Your task to perform on an android device: Do I have any events tomorrow? Image 0: 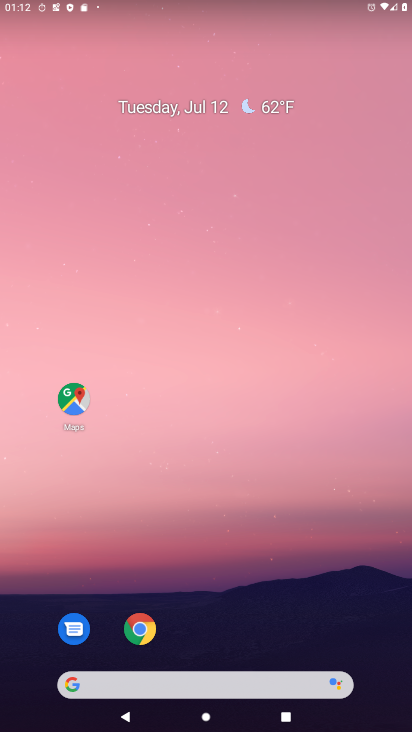
Step 0: drag from (197, 563) to (331, 67)
Your task to perform on an android device: Do I have any events tomorrow? Image 1: 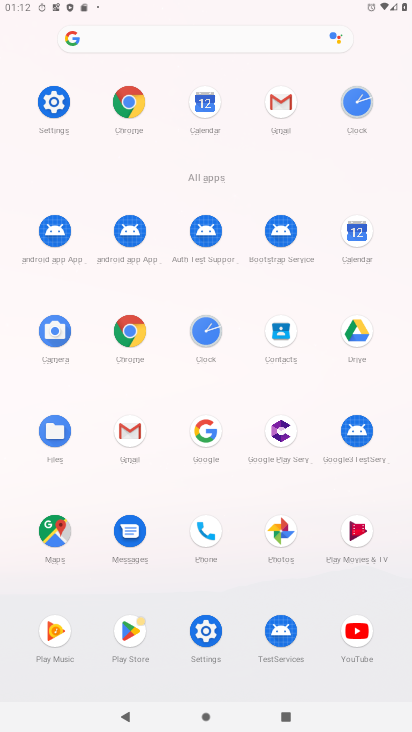
Step 1: click (353, 228)
Your task to perform on an android device: Do I have any events tomorrow? Image 2: 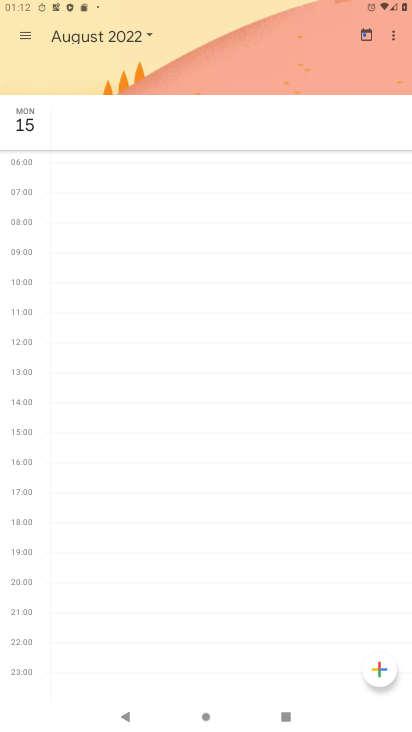
Step 2: click (113, 25)
Your task to perform on an android device: Do I have any events tomorrow? Image 3: 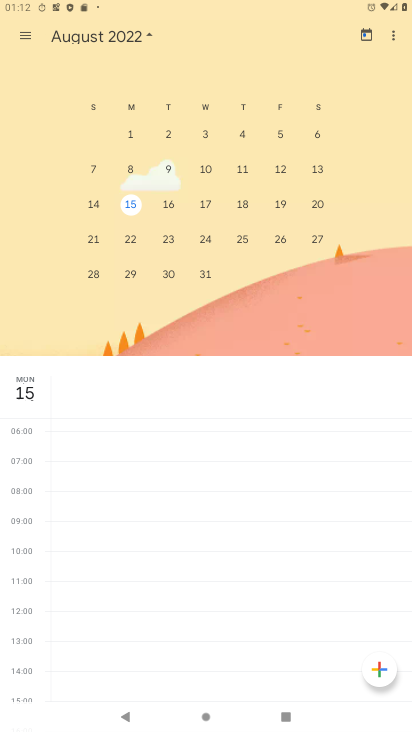
Step 3: drag from (97, 155) to (401, 173)
Your task to perform on an android device: Do I have any events tomorrow? Image 4: 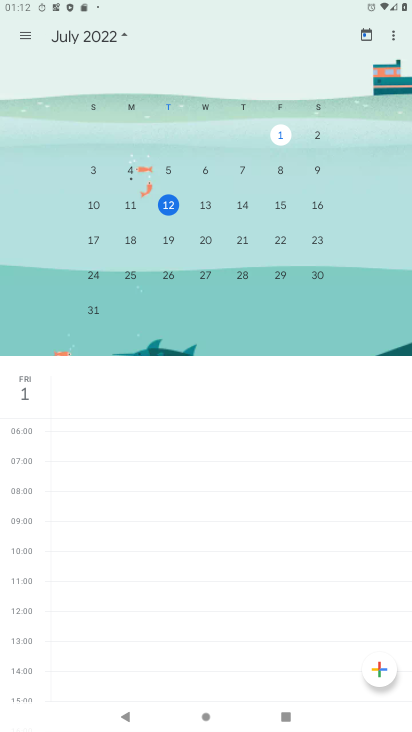
Step 4: click (201, 202)
Your task to perform on an android device: Do I have any events tomorrow? Image 5: 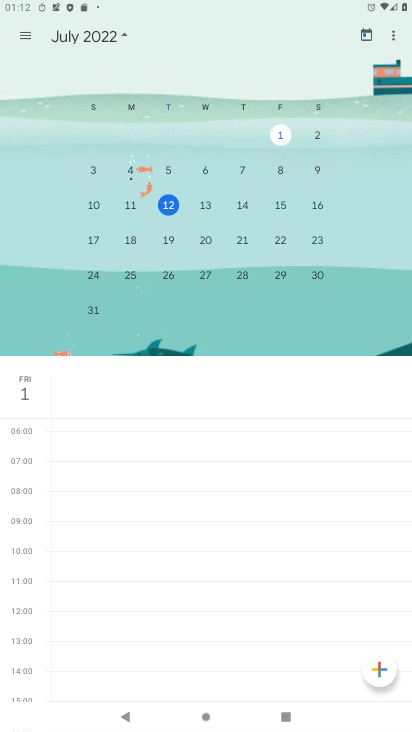
Step 5: click (214, 209)
Your task to perform on an android device: Do I have any events tomorrow? Image 6: 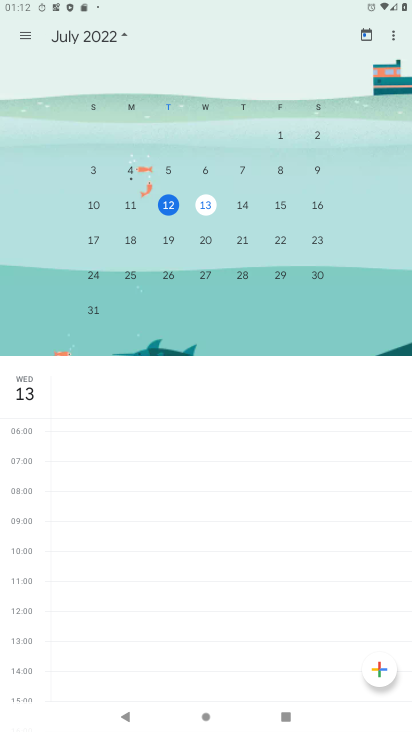
Step 6: click (211, 204)
Your task to perform on an android device: Do I have any events tomorrow? Image 7: 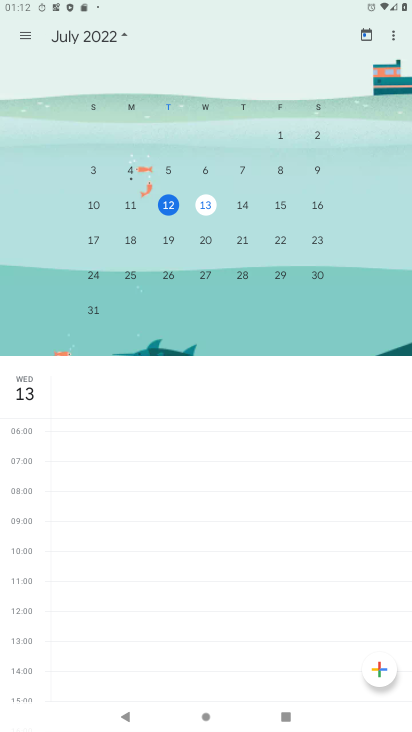
Step 7: task complete